Your task to perform on an android device: Go to Amazon Image 0: 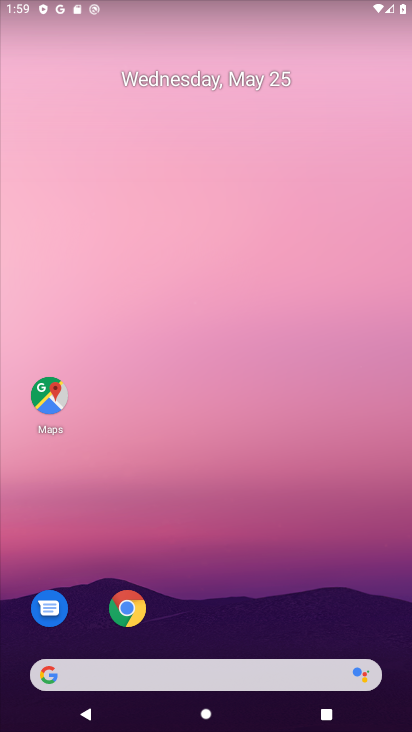
Step 0: click (125, 616)
Your task to perform on an android device: Go to Amazon Image 1: 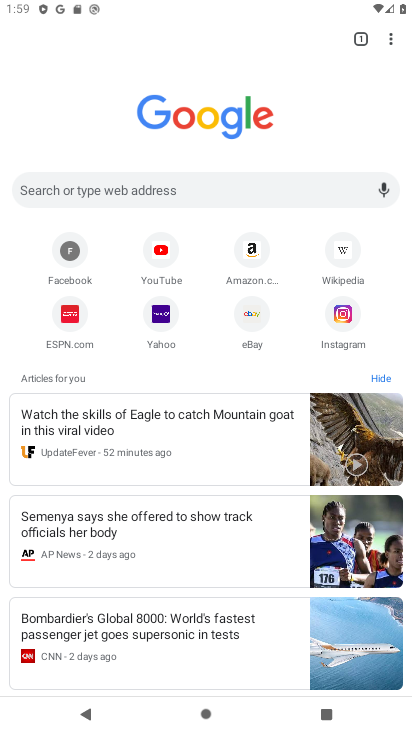
Step 1: click (248, 250)
Your task to perform on an android device: Go to Amazon Image 2: 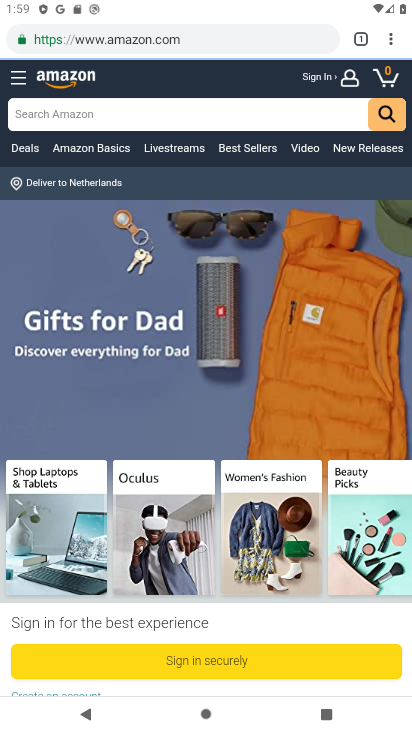
Step 2: task complete